Your task to perform on an android device: install app "LinkedIn" Image 0: 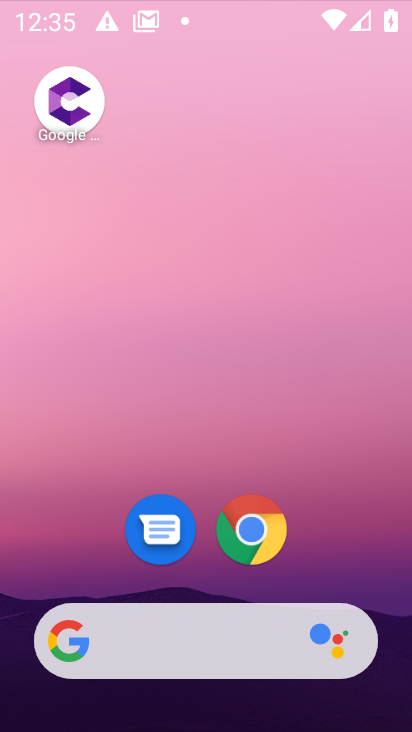
Step 0: drag from (204, 614) to (151, 92)
Your task to perform on an android device: install app "LinkedIn" Image 1: 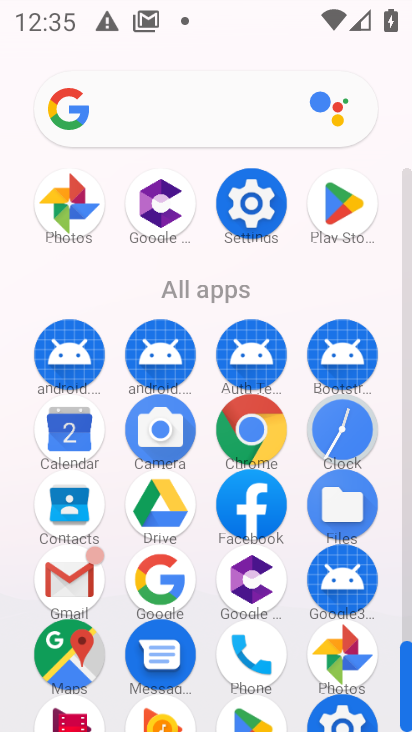
Step 1: click (314, 191)
Your task to perform on an android device: install app "LinkedIn" Image 2: 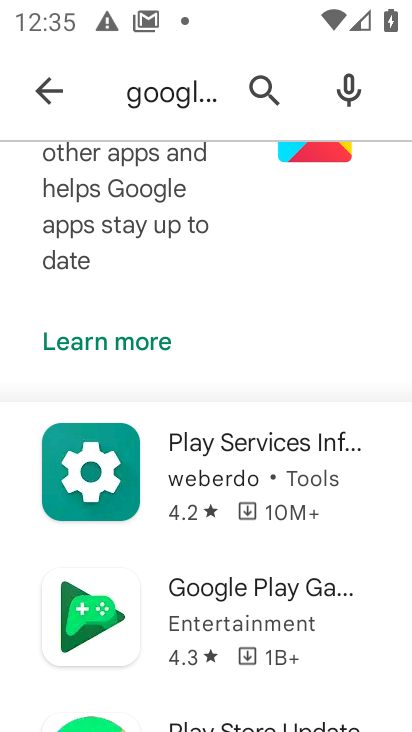
Step 2: click (250, 92)
Your task to perform on an android device: install app "LinkedIn" Image 3: 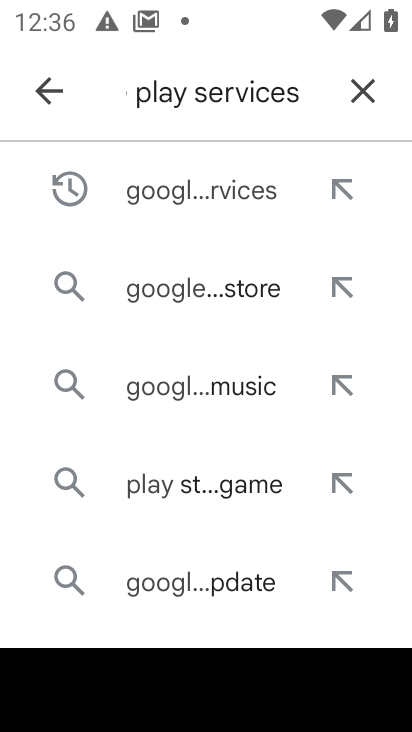
Step 3: click (358, 83)
Your task to perform on an android device: install app "LinkedIn" Image 4: 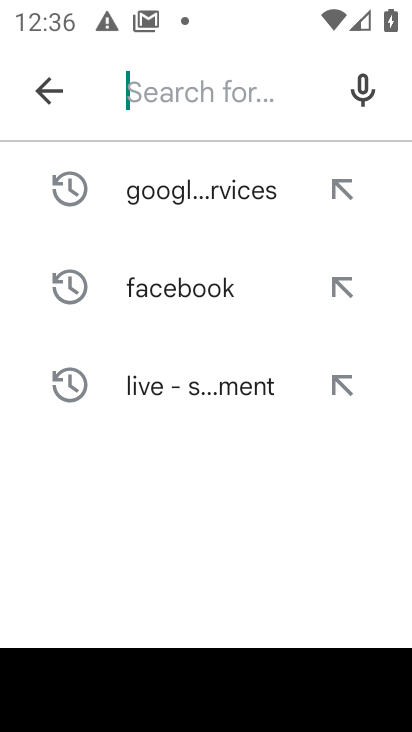
Step 4: type "linkedin"
Your task to perform on an android device: install app "LinkedIn" Image 5: 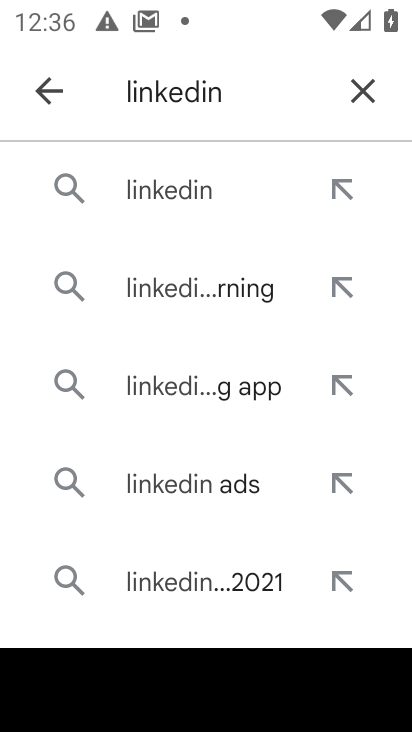
Step 5: click (178, 198)
Your task to perform on an android device: install app "LinkedIn" Image 6: 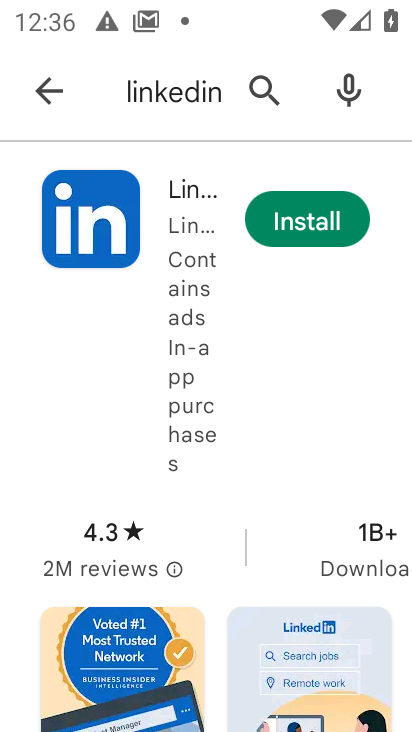
Step 6: click (271, 227)
Your task to perform on an android device: install app "LinkedIn" Image 7: 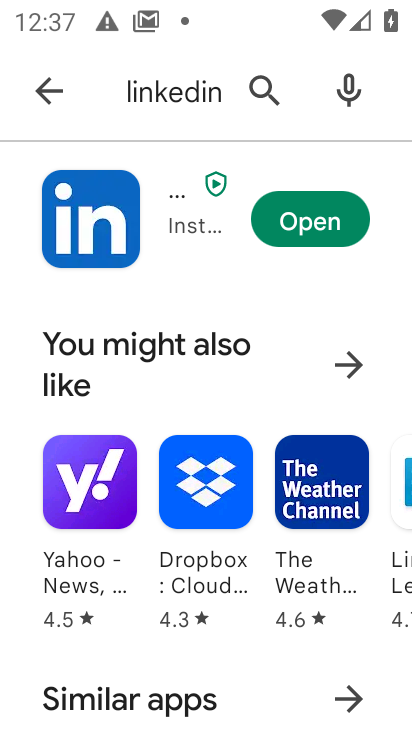
Step 7: task complete